Your task to perform on an android device: stop showing notifications on the lock screen Image 0: 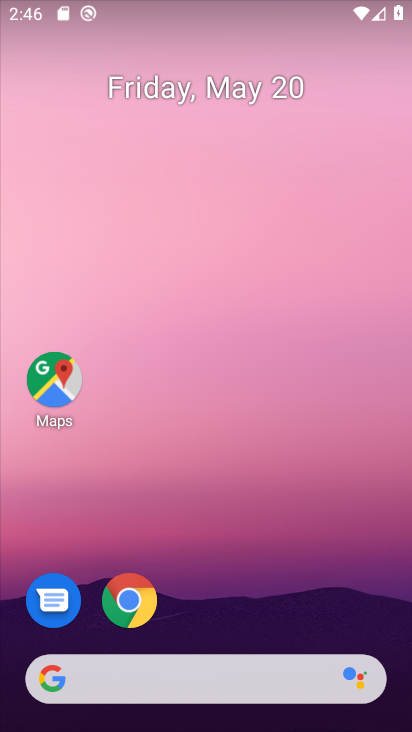
Step 0: drag from (369, 611) to (361, 333)
Your task to perform on an android device: stop showing notifications on the lock screen Image 1: 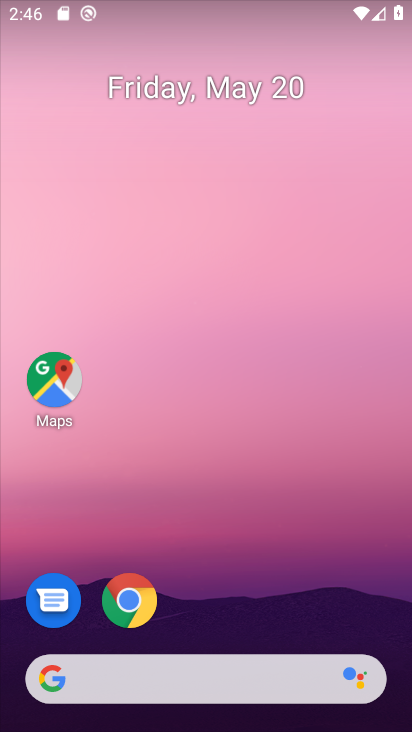
Step 1: drag from (365, 622) to (350, 268)
Your task to perform on an android device: stop showing notifications on the lock screen Image 2: 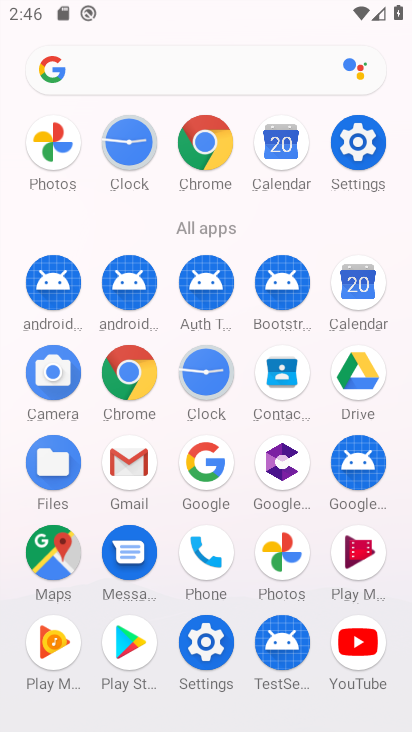
Step 2: click (361, 165)
Your task to perform on an android device: stop showing notifications on the lock screen Image 3: 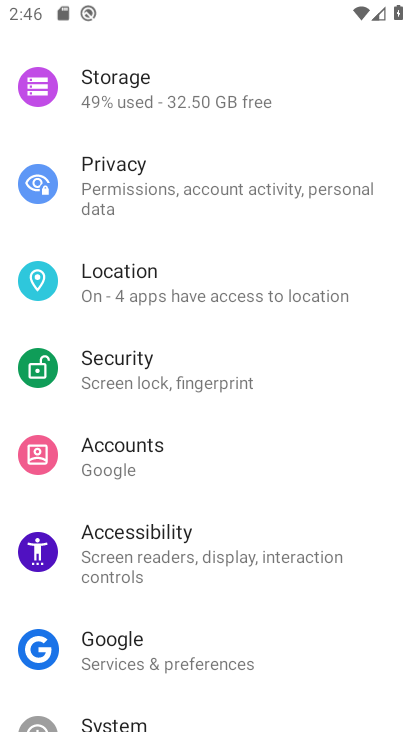
Step 3: drag from (354, 265) to (357, 349)
Your task to perform on an android device: stop showing notifications on the lock screen Image 4: 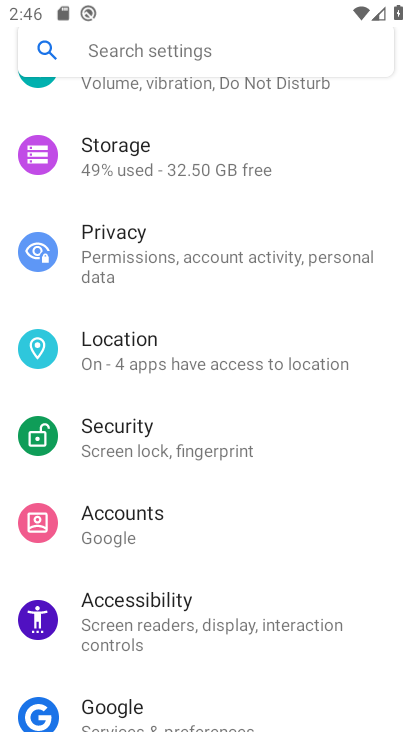
Step 4: drag from (372, 207) to (365, 307)
Your task to perform on an android device: stop showing notifications on the lock screen Image 5: 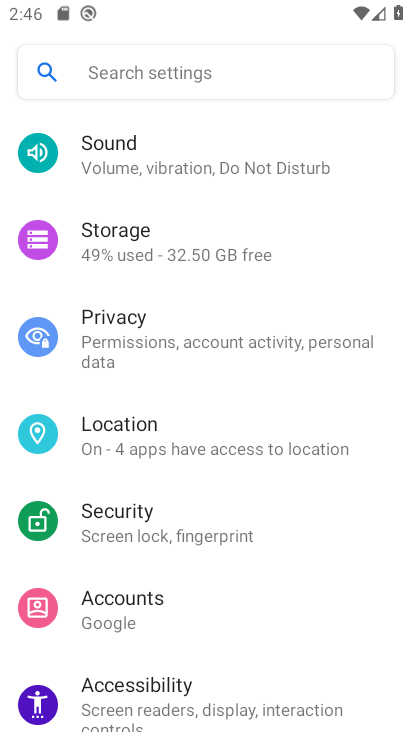
Step 5: drag from (378, 215) to (378, 319)
Your task to perform on an android device: stop showing notifications on the lock screen Image 6: 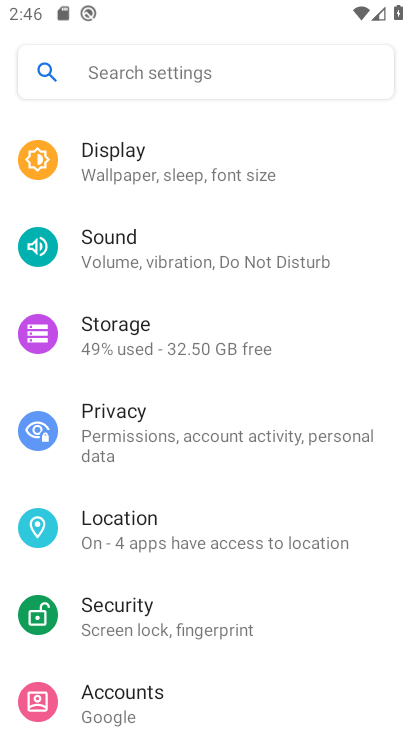
Step 6: drag from (370, 233) to (370, 327)
Your task to perform on an android device: stop showing notifications on the lock screen Image 7: 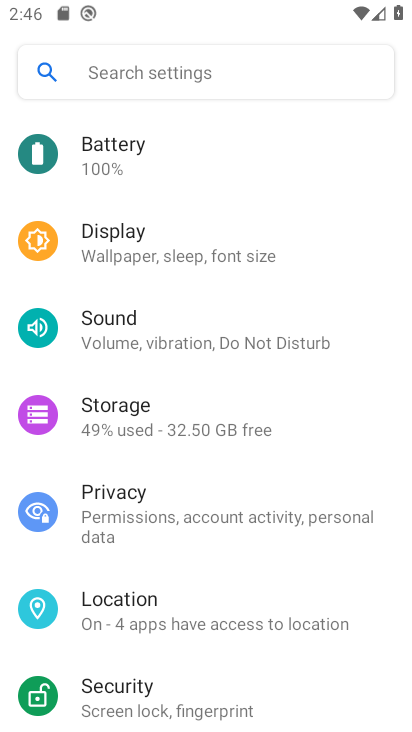
Step 7: drag from (338, 346) to (338, 400)
Your task to perform on an android device: stop showing notifications on the lock screen Image 8: 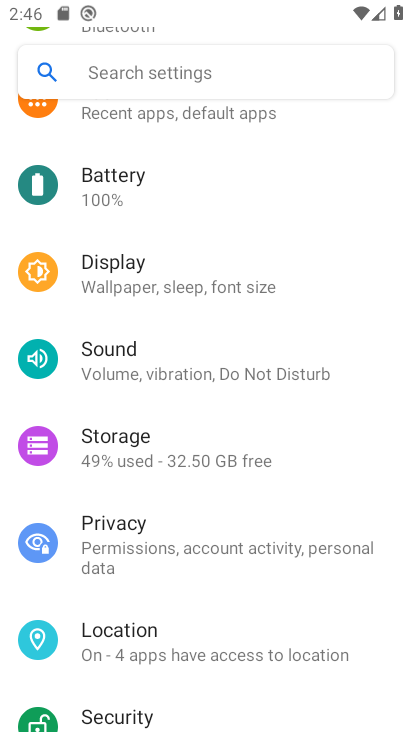
Step 8: drag from (351, 313) to (351, 417)
Your task to perform on an android device: stop showing notifications on the lock screen Image 9: 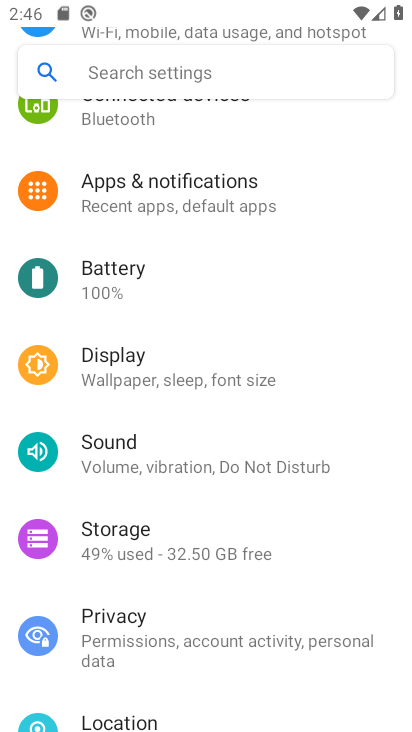
Step 9: drag from (342, 512) to (349, 415)
Your task to perform on an android device: stop showing notifications on the lock screen Image 10: 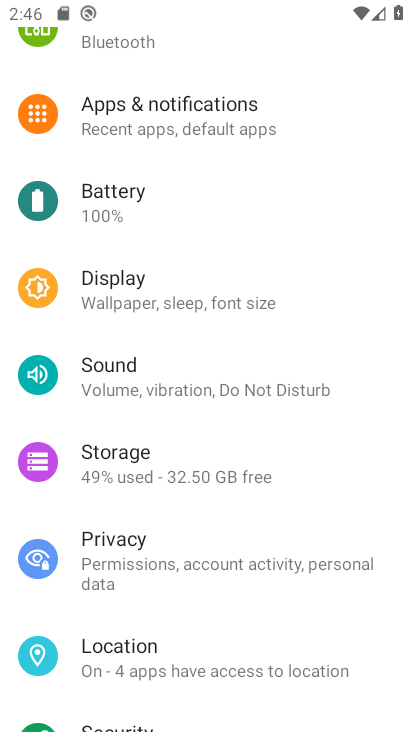
Step 10: drag from (327, 331) to (327, 462)
Your task to perform on an android device: stop showing notifications on the lock screen Image 11: 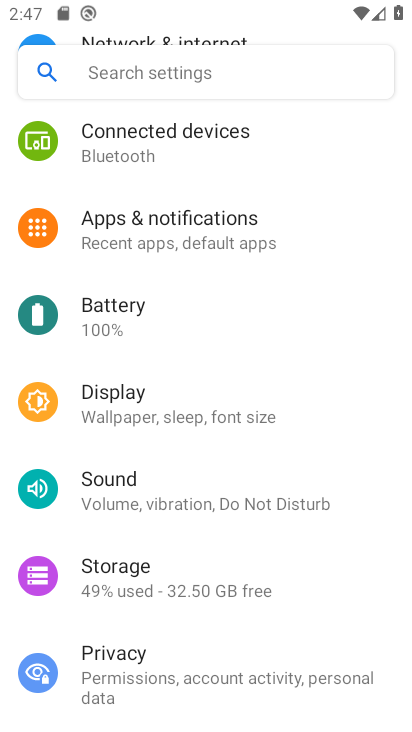
Step 11: click (250, 265)
Your task to perform on an android device: stop showing notifications on the lock screen Image 12: 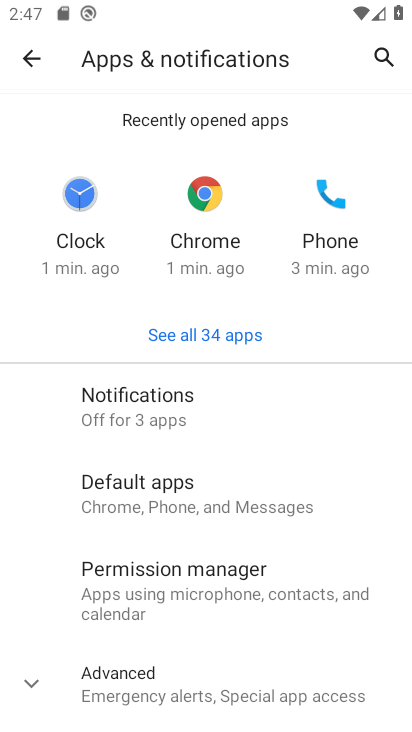
Step 12: drag from (325, 456) to (321, 340)
Your task to perform on an android device: stop showing notifications on the lock screen Image 13: 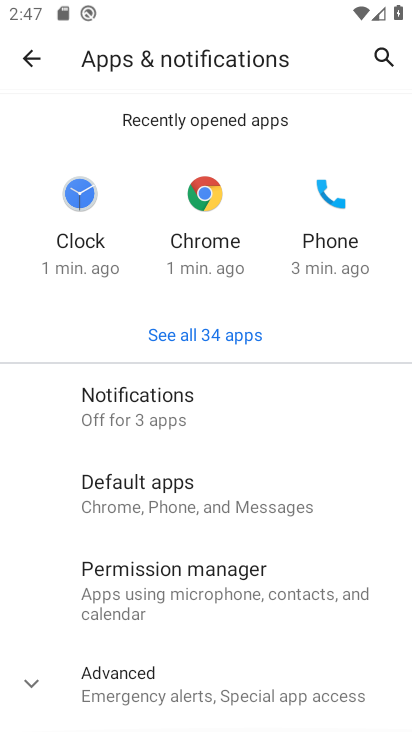
Step 13: click (169, 421)
Your task to perform on an android device: stop showing notifications on the lock screen Image 14: 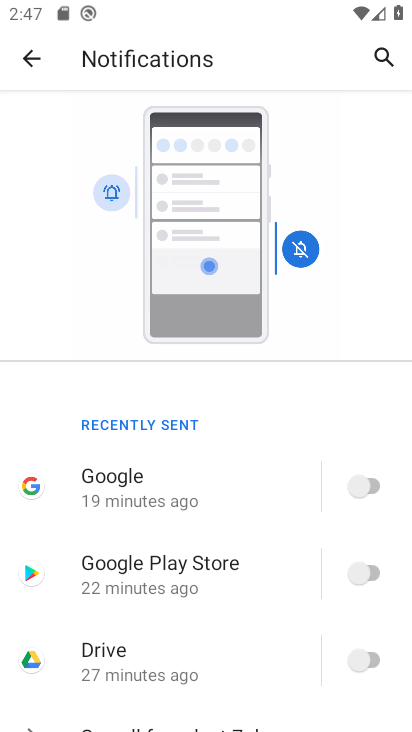
Step 14: drag from (271, 495) to (276, 416)
Your task to perform on an android device: stop showing notifications on the lock screen Image 15: 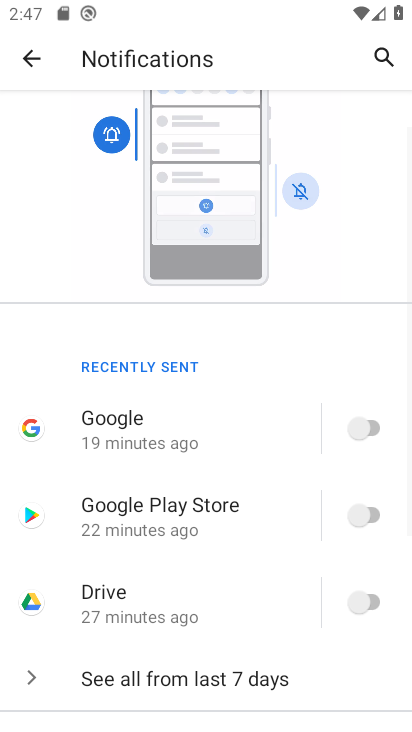
Step 15: drag from (278, 545) to (276, 473)
Your task to perform on an android device: stop showing notifications on the lock screen Image 16: 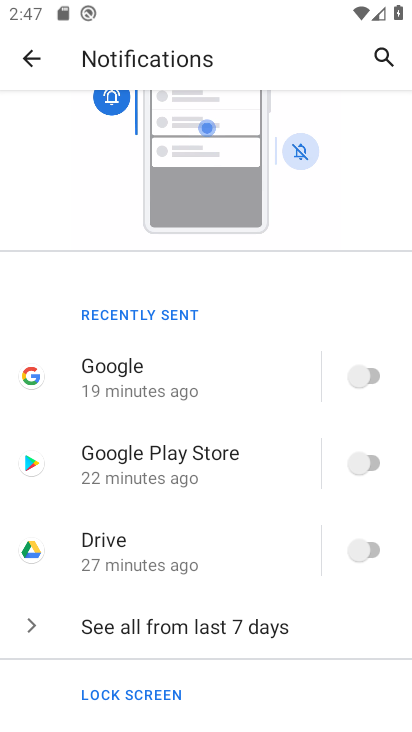
Step 16: drag from (268, 549) to (271, 475)
Your task to perform on an android device: stop showing notifications on the lock screen Image 17: 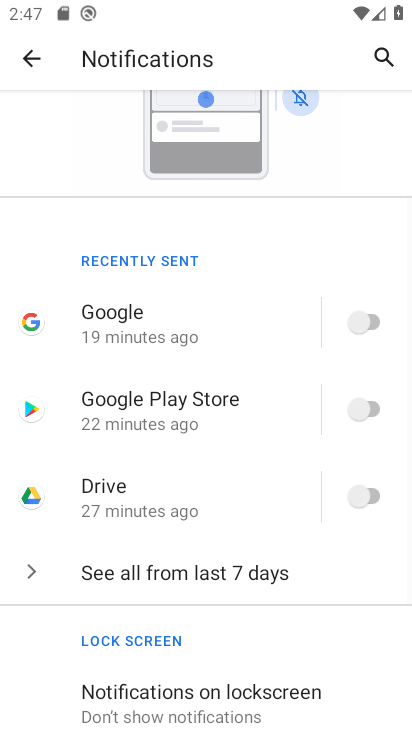
Step 17: drag from (273, 548) to (280, 487)
Your task to perform on an android device: stop showing notifications on the lock screen Image 18: 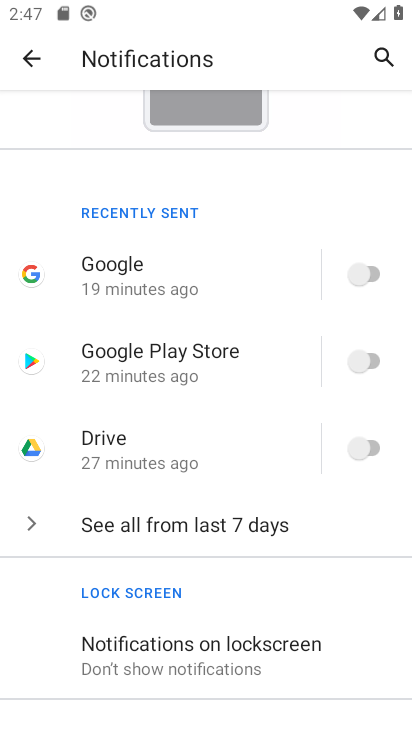
Step 18: drag from (267, 541) to (265, 480)
Your task to perform on an android device: stop showing notifications on the lock screen Image 19: 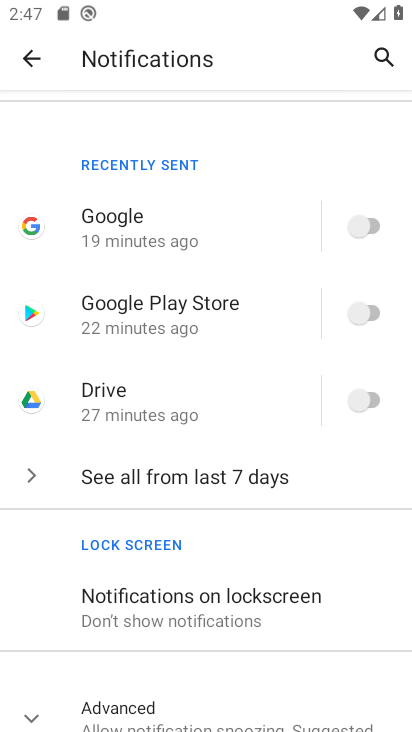
Step 19: drag from (271, 594) to (272, 504)
Your task to perform on an android device: stop showing notifications on the lock screen Image 20: 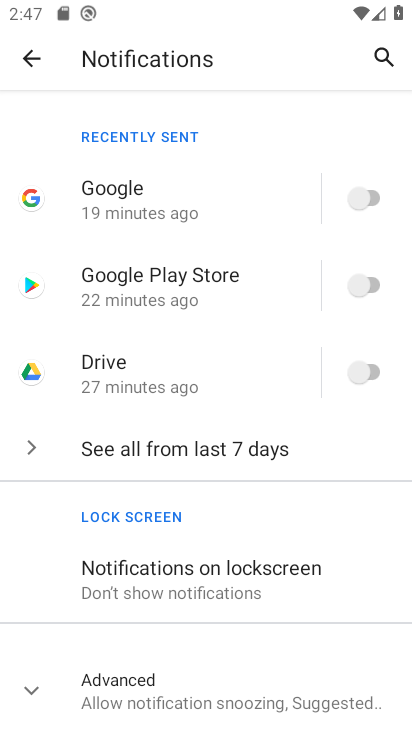
Step 20: click (231, 587)
Your task to perform on an android device: stop showing notifications on the lock screen Image 21: 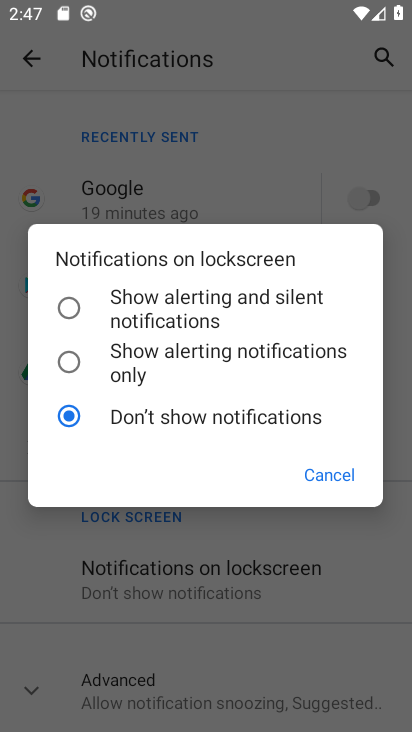
Step 21: task complete